Your task to perform on an android device: add a contact in the contacts app Image 0: 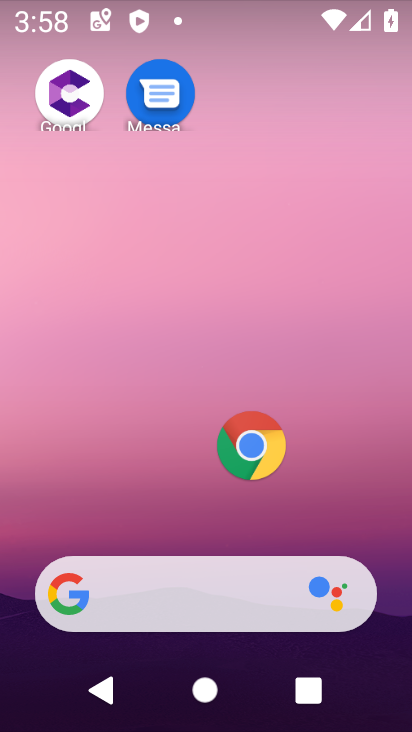
Step 0: drag from (156, 487) to (247, 13)
Your task to perform on an android device: add a contact in the contacts app Image 1: 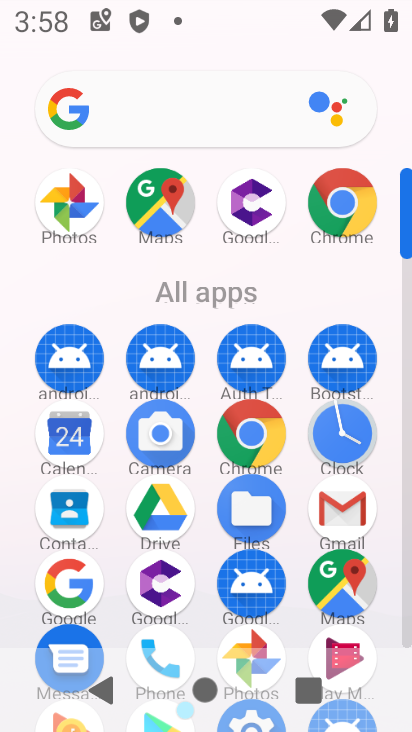
Step 1: drag from (210, 549) to (207, 205)
Your task to perform on an android device: add a contact in the contacts app Image 2: 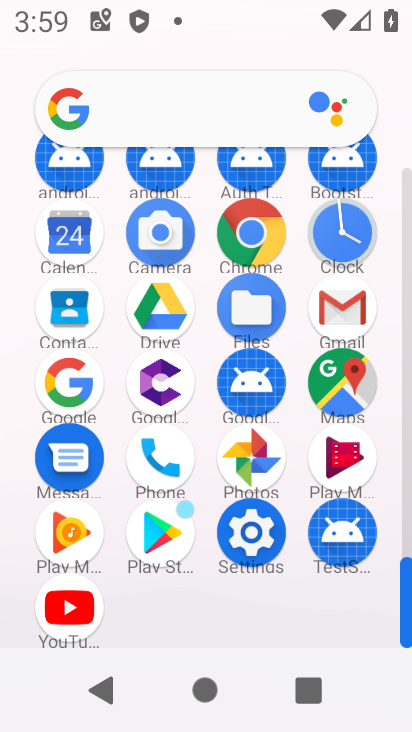
Step 2: click (80, 322)
Your task to perform on an android device: add a contact in the contacts app Image 3: 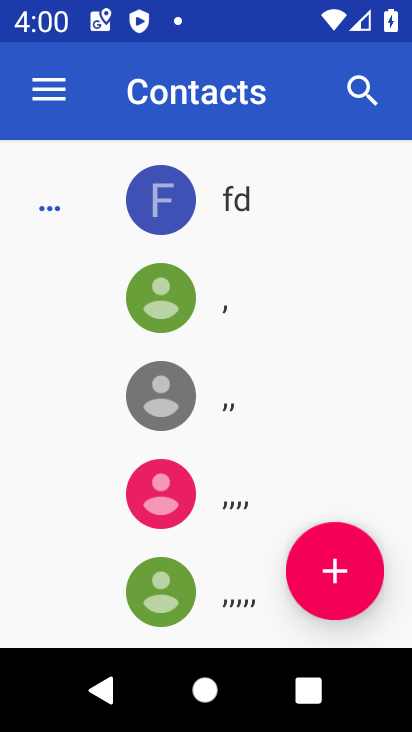
Step 3: click (336, 581)
Your task to perform on an android device: add a contact in the contacts app Image 4: 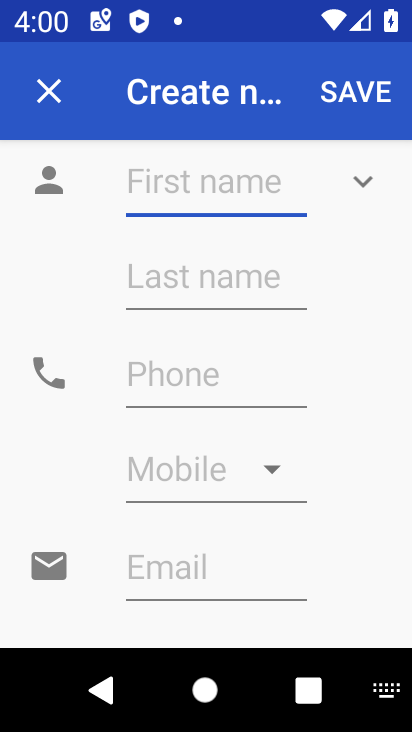
Step 4: type "fluid"
Your task to perform on an android device: add a contact in the contacts app Image 5: 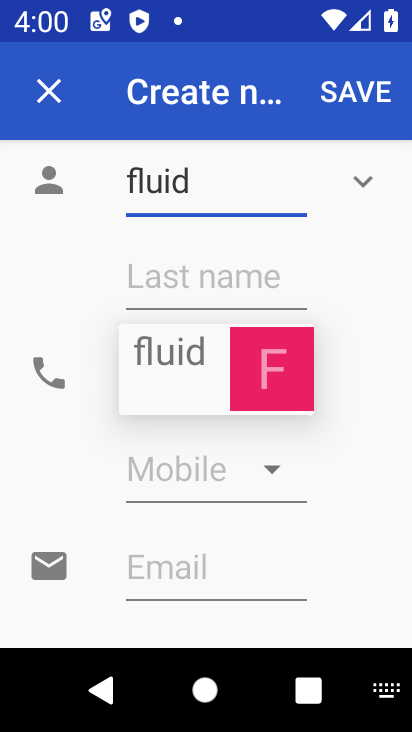
Step 5: type "ghg"
Your task to perform on an android device: add a contact in the contacts app Image 6: 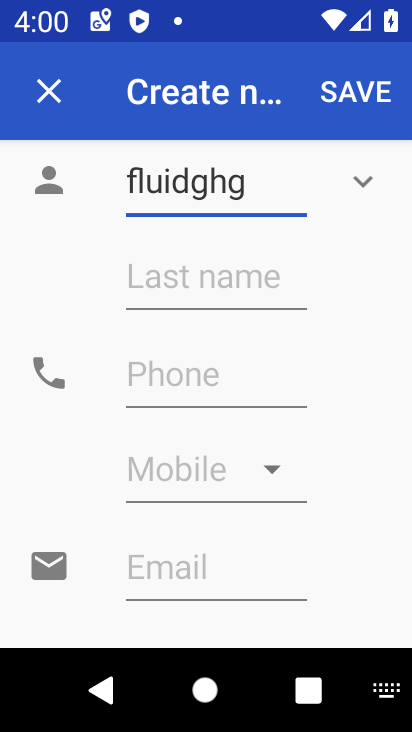
Step 6: click (358, 97)
Your task to perform on an android device: add a contact in the contacts app Image 7: 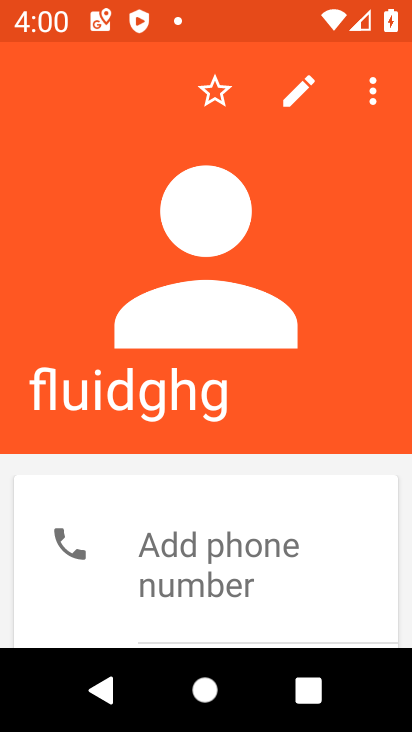
Step 7: task complete